Your task to perform on an android device: Open maps Image 0: 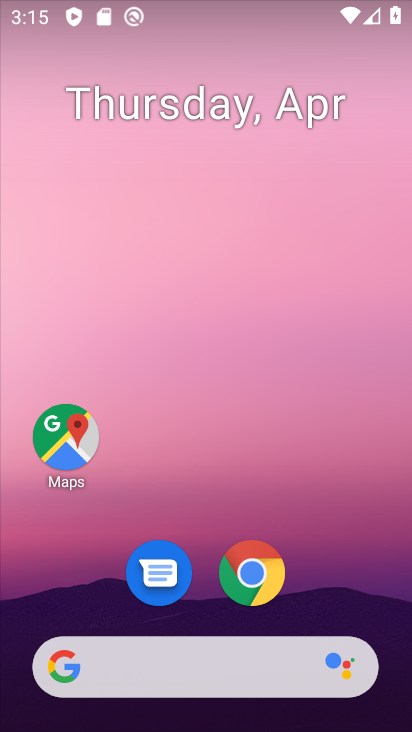
Step 0: drag from (360, 600) to (209, 19)
Your task to perform on an android device: Open maps Image 1: 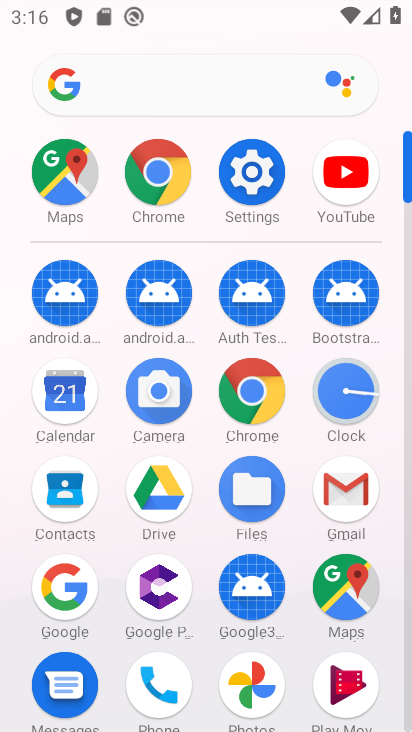
Step 1: click (348, 581)
Your task to perform on an android device: Open maps Image 2: 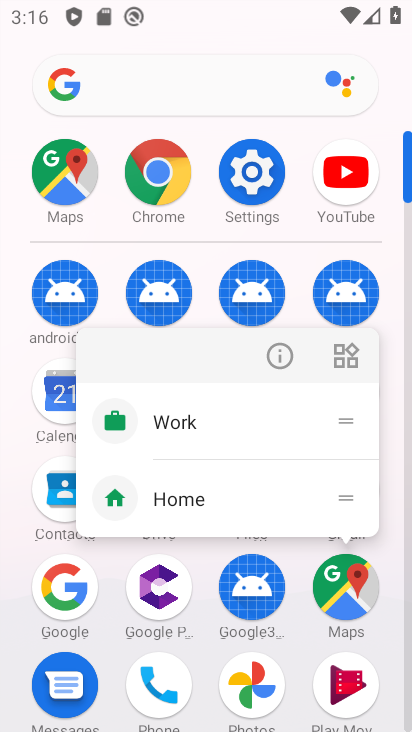
Step 2: click (348, 581)
Your task to perform on an android device: Open maps Image 3: 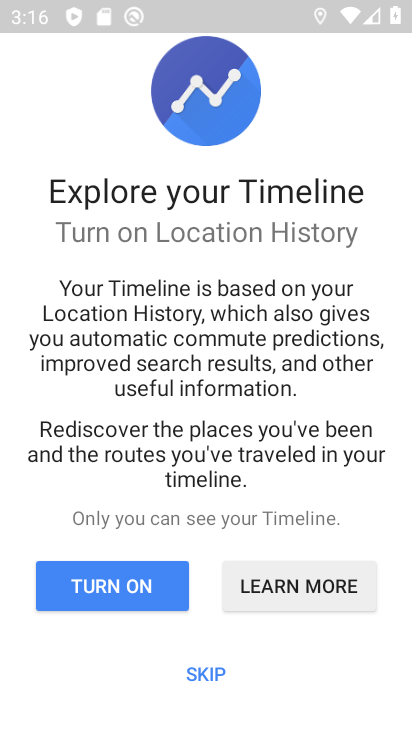
Step 3: task complete